Your task to perform on an android device: Open accessibility settings Image 0: 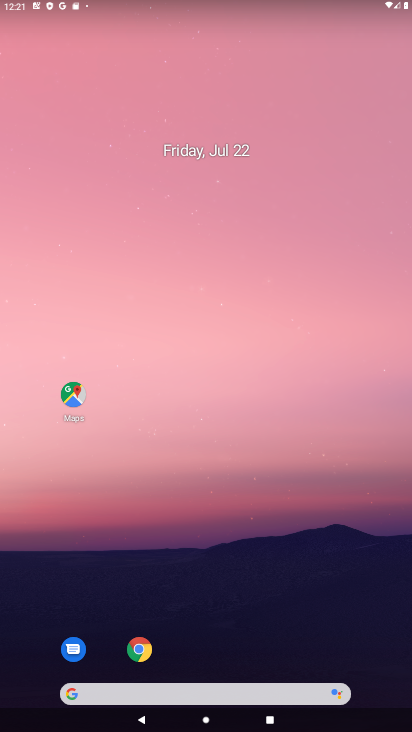
Step 0: drag from (233, 721) to (237, 210)
Your task to perform on an android device: Open accessibility settings Image 1: 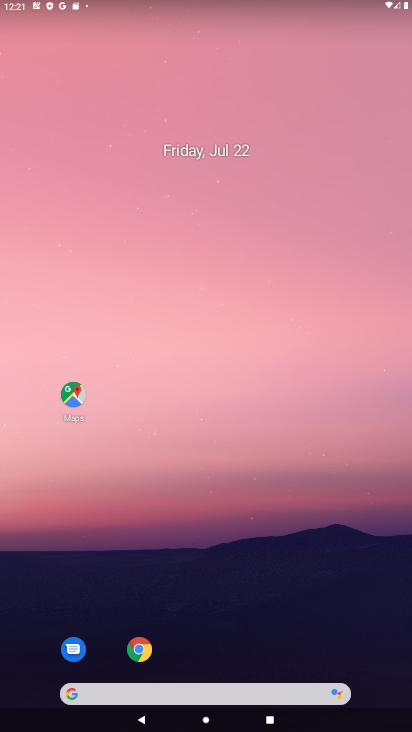
Step 1: drag from (231, 598) to (233, 256)
Your task to perform on an android device: Open accessibility settings Image 2: 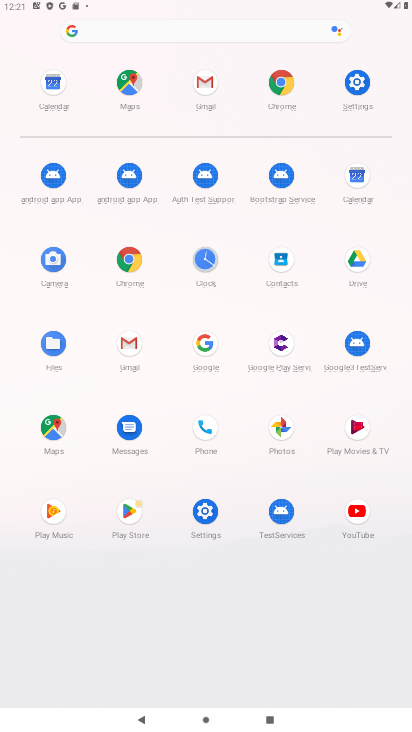
Step 2: click (357, 79)
Your task to perform on an android device: Open accessibility settings Image 3: 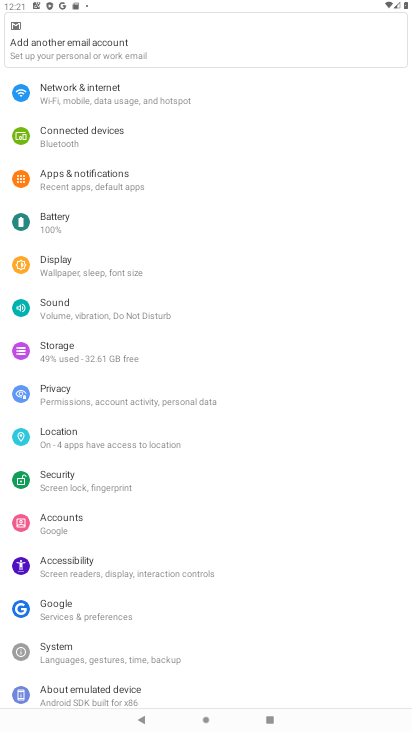
Step 3: click (77, 559)
Your task to perform on an android device: Open accessibility settings Image 4: 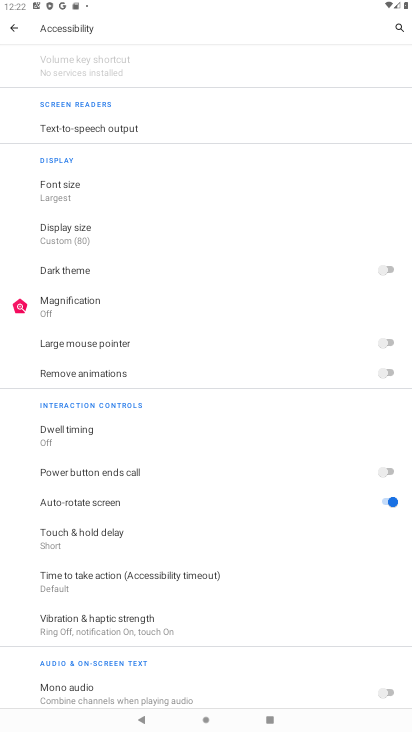
Step 4: task complete